Your task to perform on an android device: Open the stopwatch Image 0: 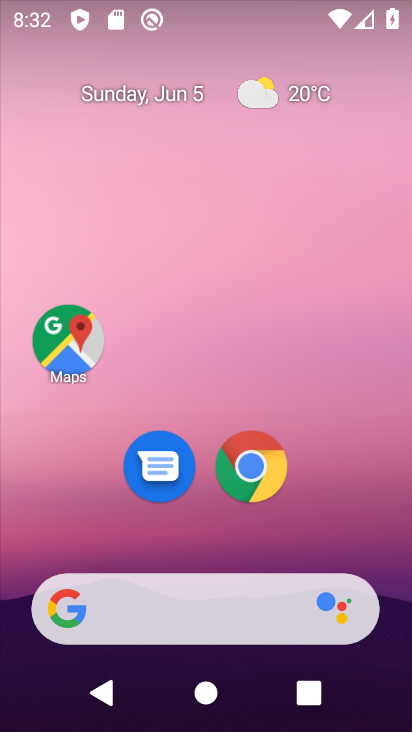
Step 0: drag from (207, 564) to (172, 28)
Your task to perform on an android device: Open the stopwatch Image 1: 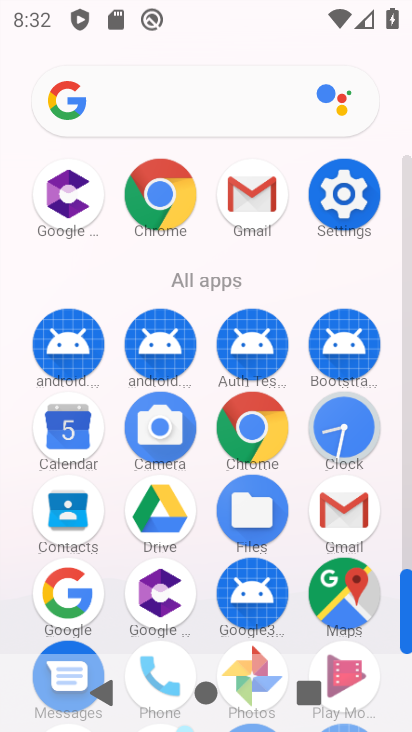
Step 1: click (335, 454)
Your task to perform on an android device: Open the stopwatch Image 2: 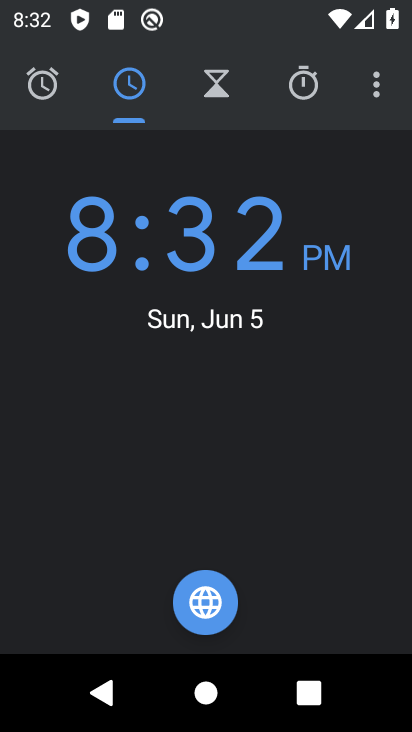
Step 2: click (231, 101)
Your task to perform on an android device: Open the stopwatch Image 3: 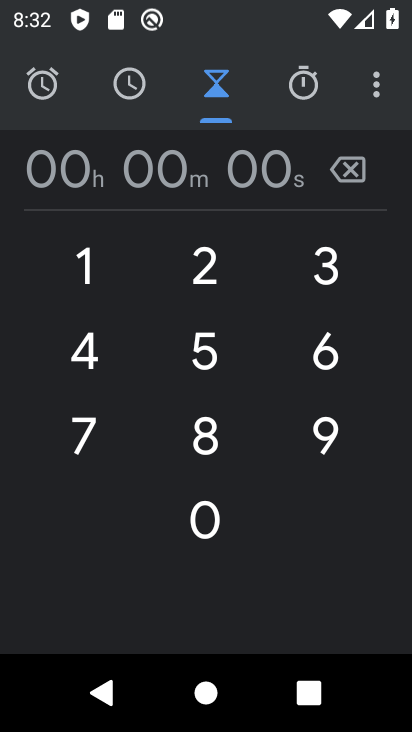
Step 3: click (300, 101)
Your task to perform on an android device: Open the stopwatch Image 4: 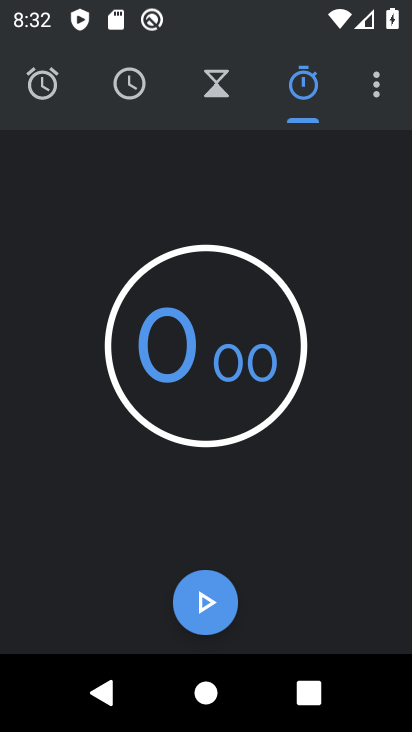
Step 4: task complete